Your task to perform on an android device: Go to CNN.com Image 0: 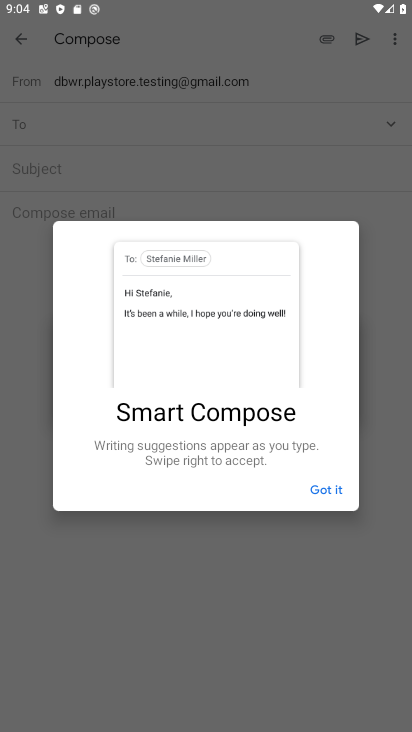
Step 0: drag from (282, 715) to (224, 223)
Your task to perform on an android device: Go to CNN.com Image 1: 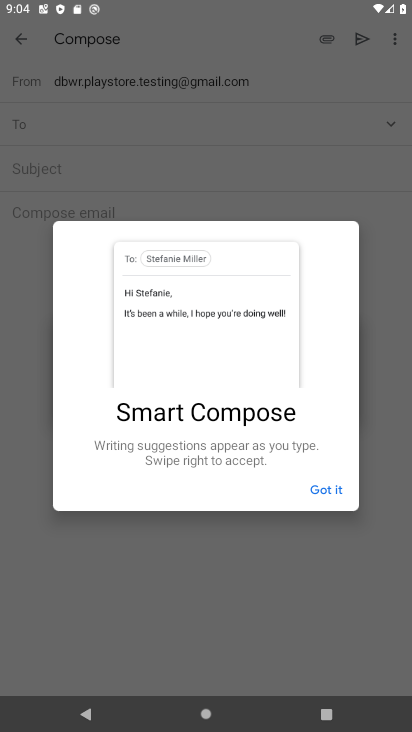
Step 1: press home button
Your task to perform on an android device: Go to CNN.com Image 2: 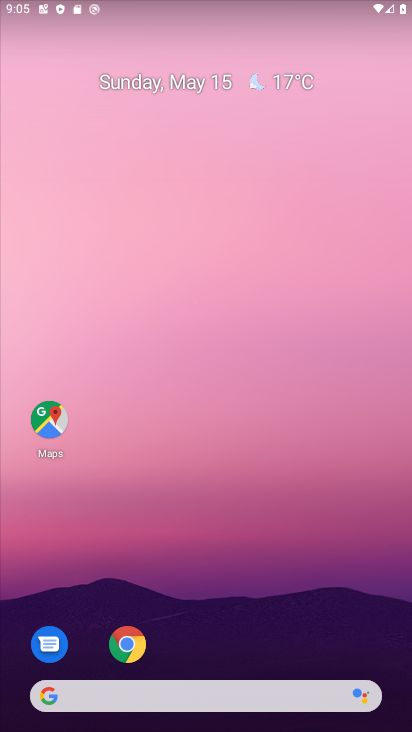
Step 2: drag from (242, 711) to (247, 197)
Your task to perform on an android device: Go to CNN.com Image 3: 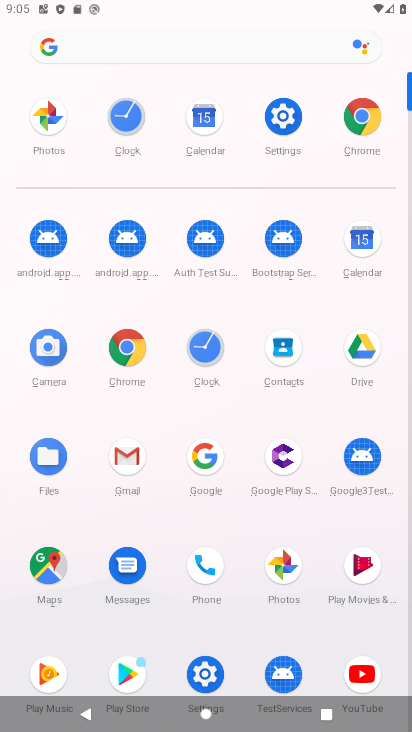
Step 3: click (354, 141)
Your task to perform on an android device: Go to CNN.com Image 4: 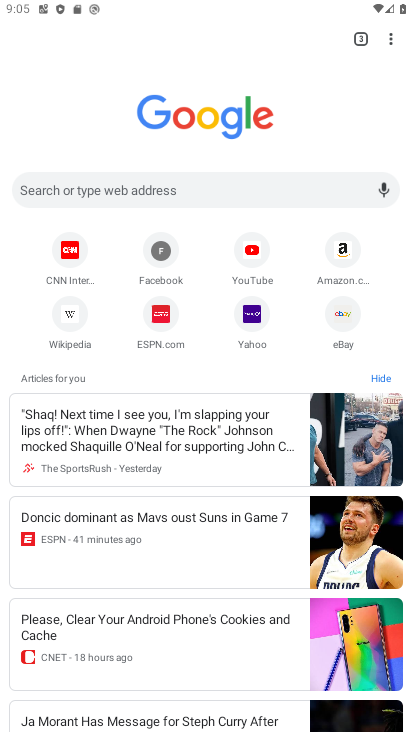
Step 4: click (158, 186)
Your task to perform on an android device: Go to CNN.com Image 5: 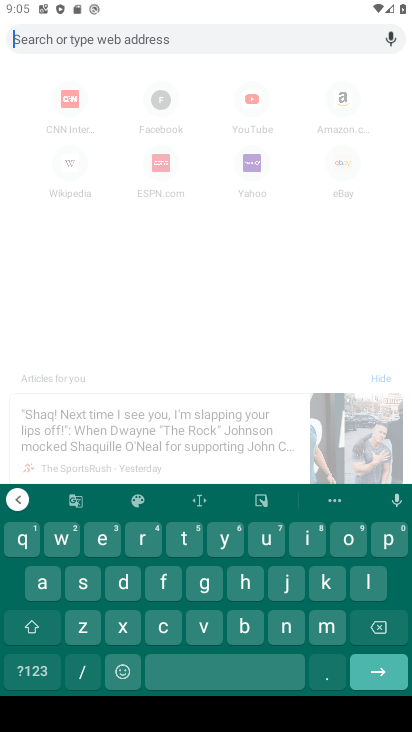
Step 5: click (163, 627)
Your task to perform on an android device: Go to CNN.com Image 6: 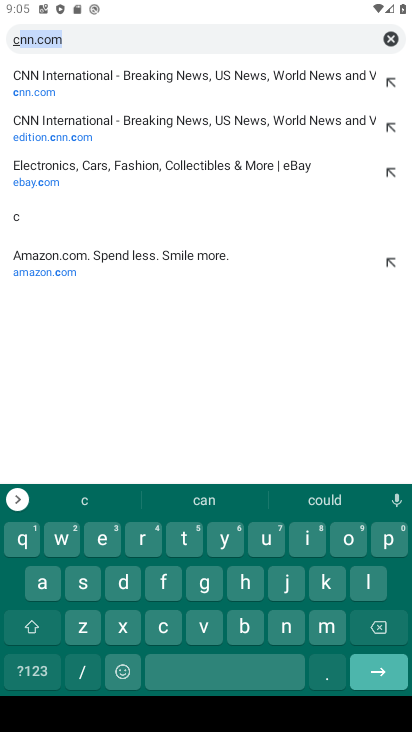
Step 6: click (286, 629)
Your task to perform on an android device: Go to CNN.com Image 7: 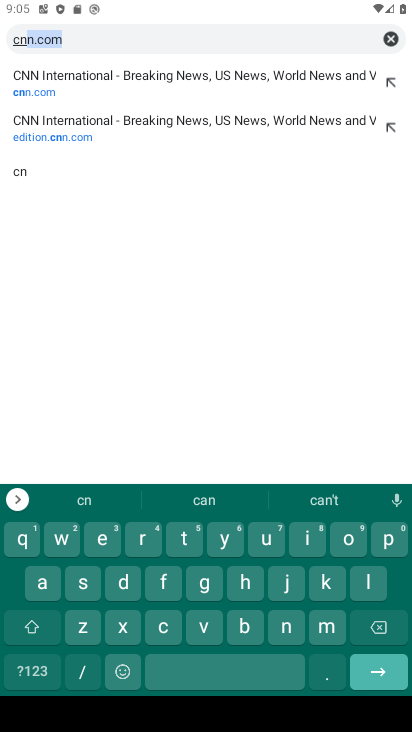
Step 7: click (94, 30)
Your task to perform on an android device: Go to CNN.com Image 8: 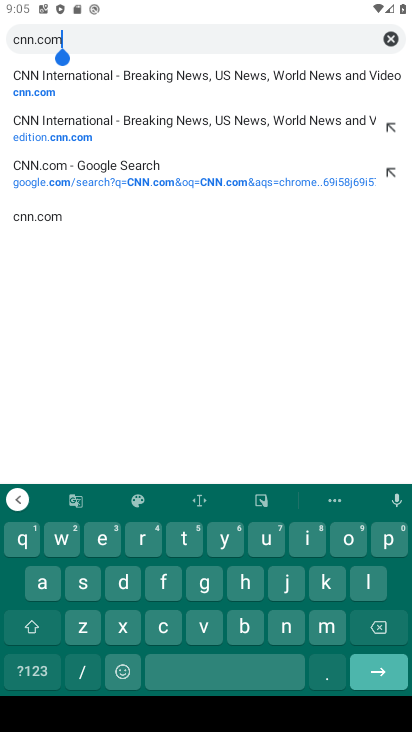
Step 8: task complete